Your task to perform on an android device: Open Yahoo.com Image 0: 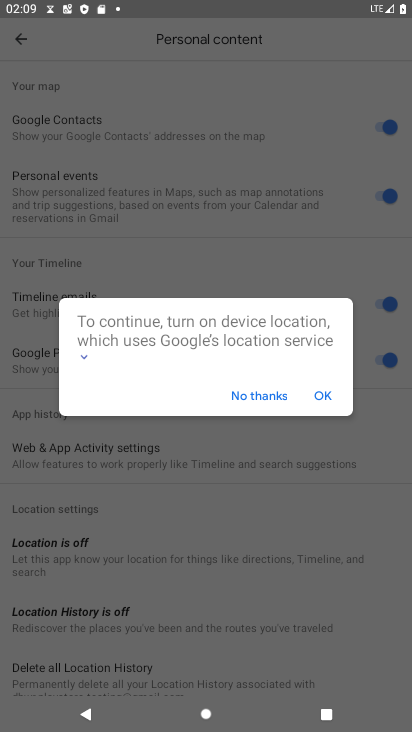
Step 0: press home button
Your task to perform on an android device: Open Yahoo.com Image 1: 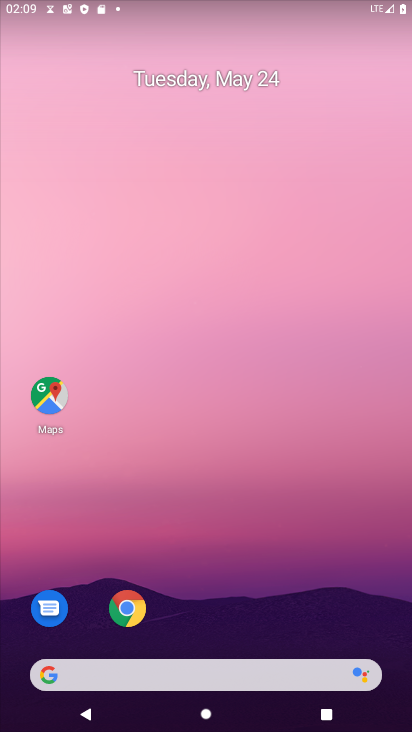
Step 1: click (136, 611)
Your task to perform on an android device: Open Yahoo.com Image 2: 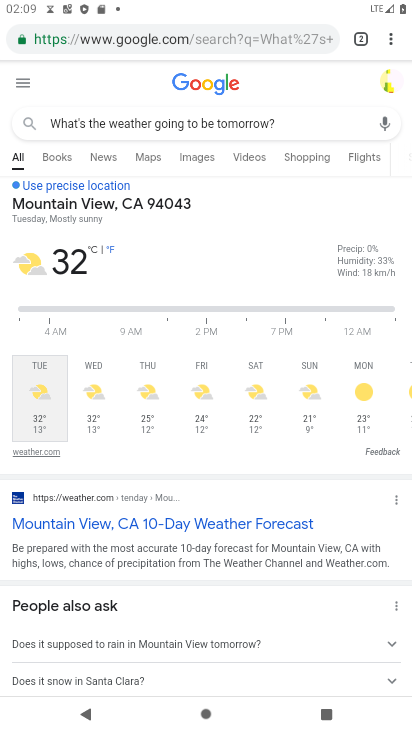
Step 2: click (200, 41)
Your task to perform on an android device: Open Yahoo.com Image 3: 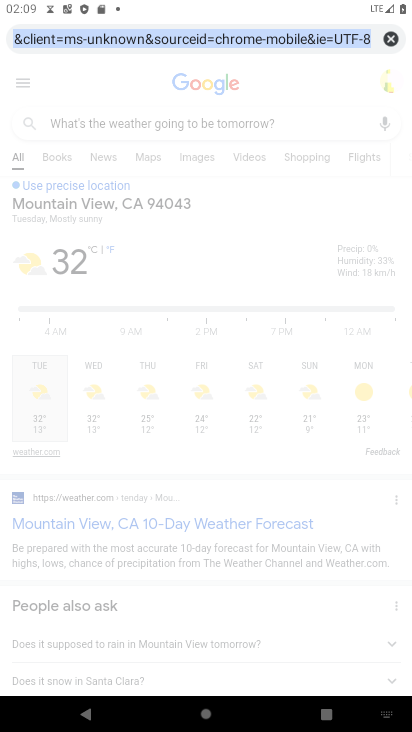
Step 3: type "yahoo.com"
Your task to perform on an android device: Open Yahoo.com Image 4: 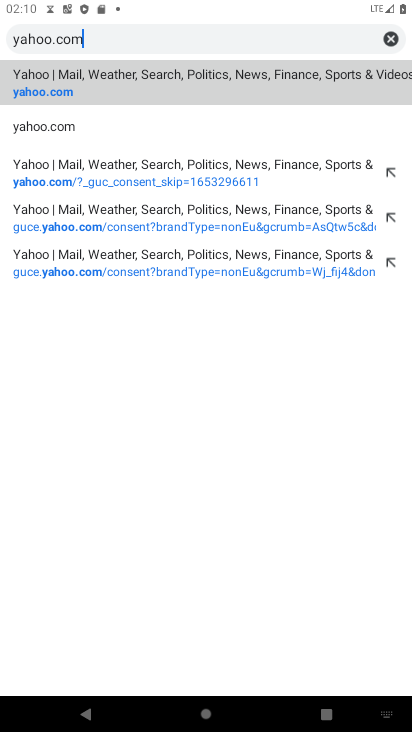
Step 4: click (72, 88)
Your task to perform on an android device: Open Yahoo.com Image 5: 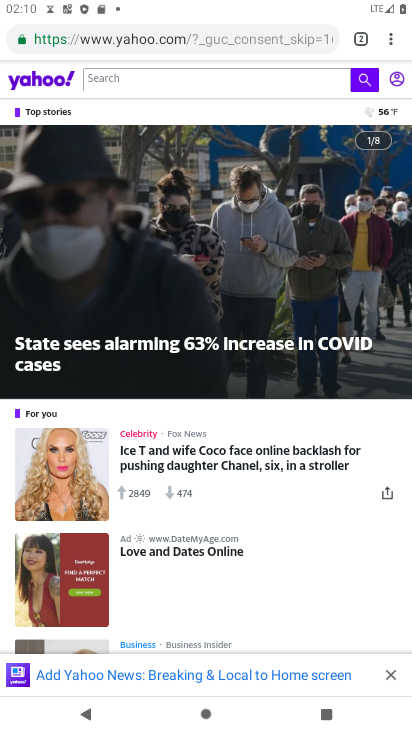
Step 5: task complete